Your task to perform on an android device: Go to battery settings Image 0: 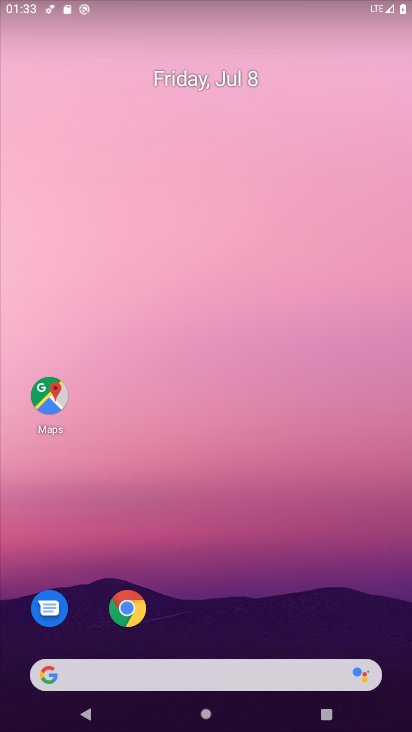
Step 0: drag from (237, 622) to (209, 113)
Your task to perform on an android device: Go to battery settings Image 1: 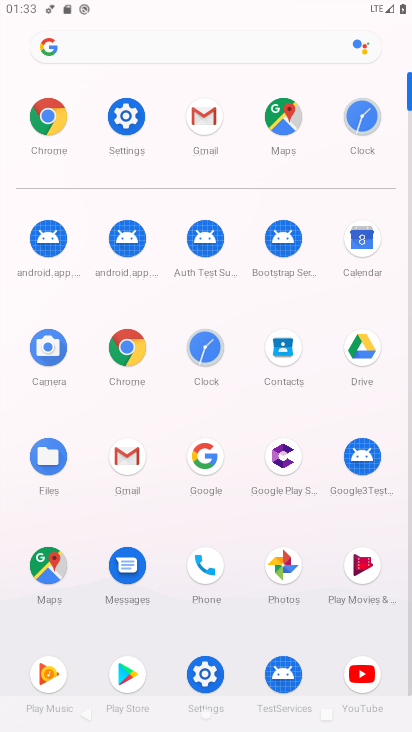
Step 1: click (118, 105)
Your task to perform on an android device: Go to battery settings Image 2: 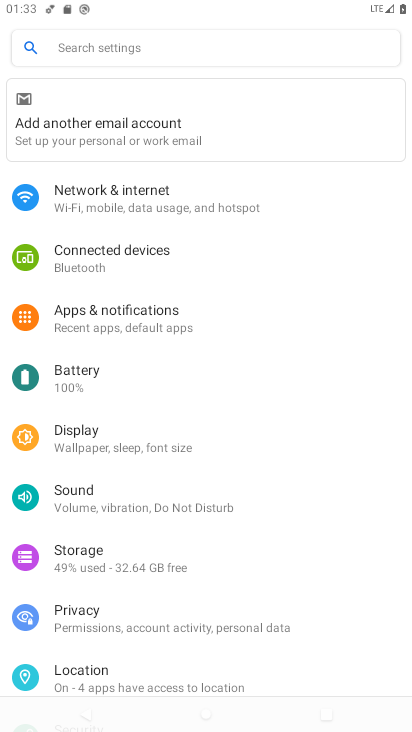
Step 2: click (97, 360)
Your task to perform on an android device: Go to battery settings Image 3: 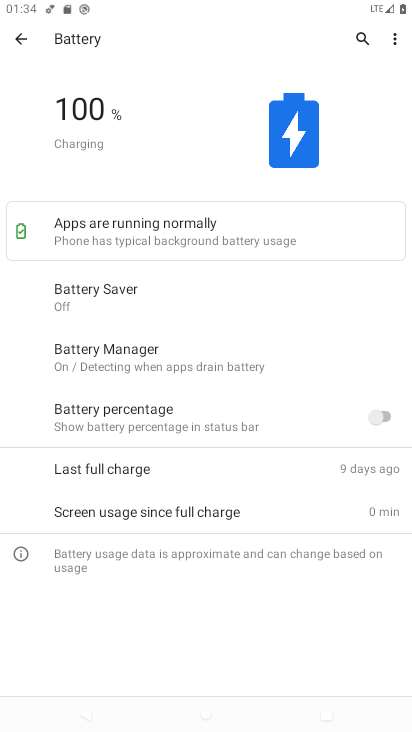
Step 3: task complete